Your task to perform on an android device: check data usage Image 0: 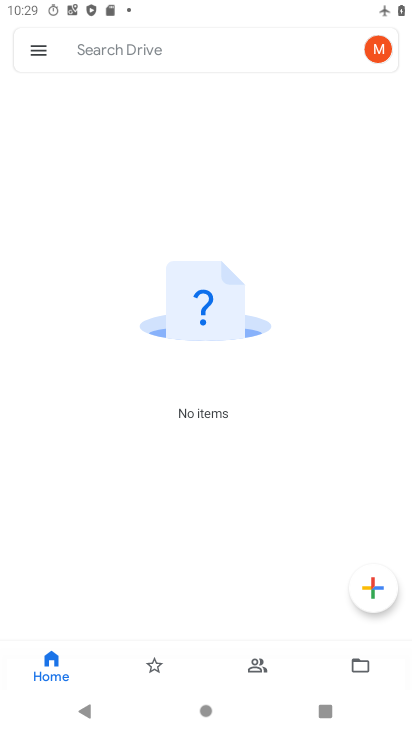
Step 0: press home button
Your task to perform on an android device: check data usage Image 1: 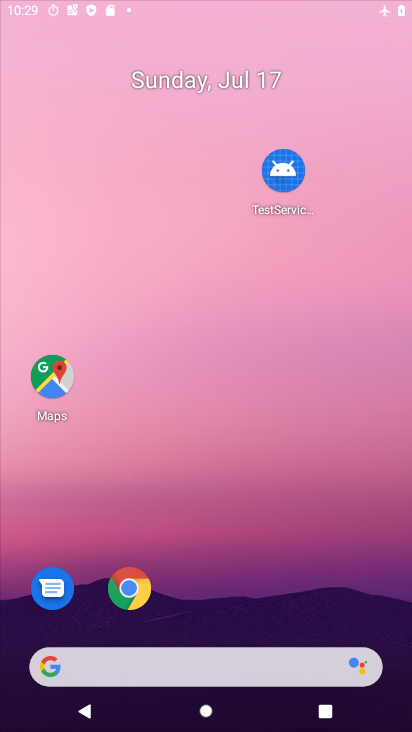
Step 1: drag from (271, 646) to (346, 66)
Your task to perform on an android device: check data usage Image 2: 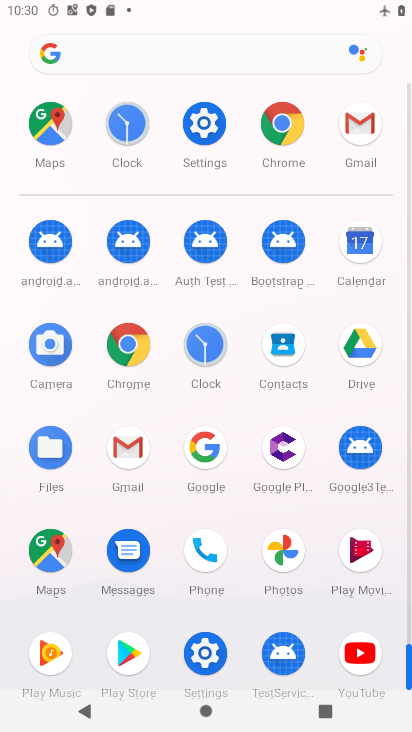
Step 2: click (206, 137)
Your task to perform on an android device: check data usage Image 3: 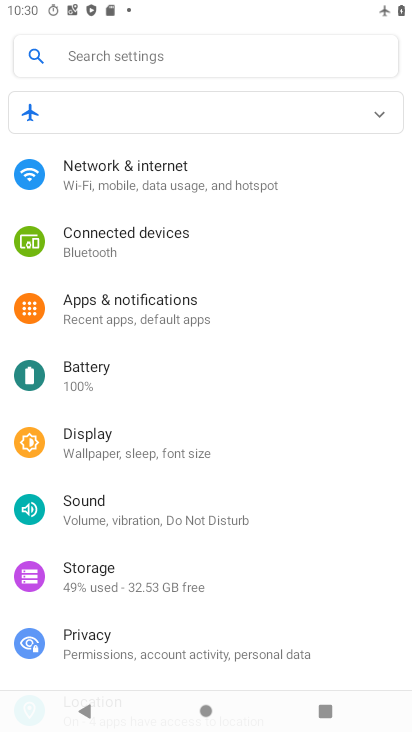
Step 3: click (226, 186)
Your task to perform on an android device: check data usage Image 4: 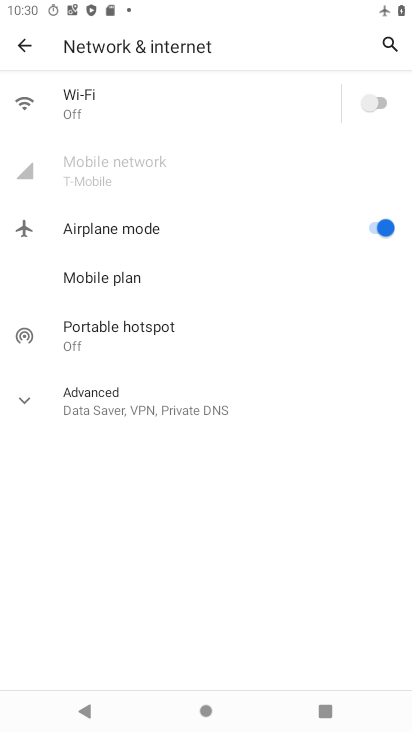
Step 4: click (159, 172)
Your task to perform on an android device: check data usage Image 5: 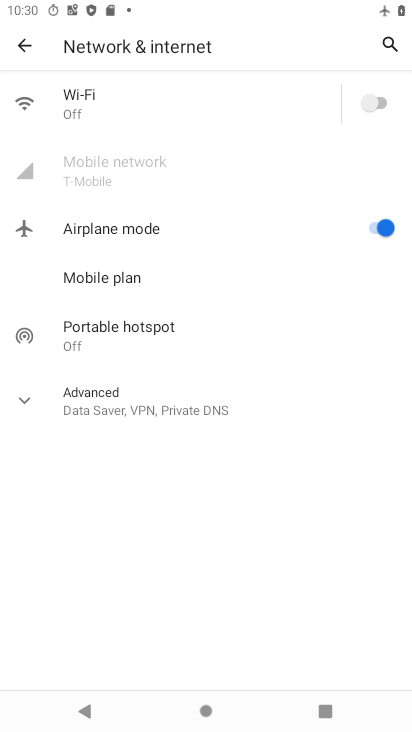
Step 5: click (172, 172)
Your task to perform on an android device: check data usage Image 6: 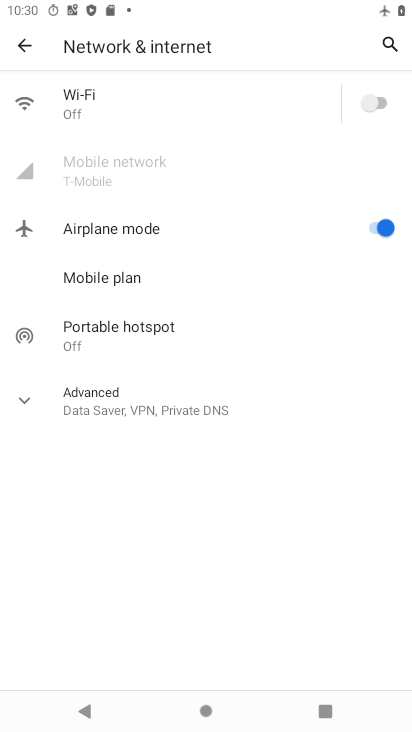
Step 6: task complete